Your task to perform on an android device: clear history in the chrome app Image 0: 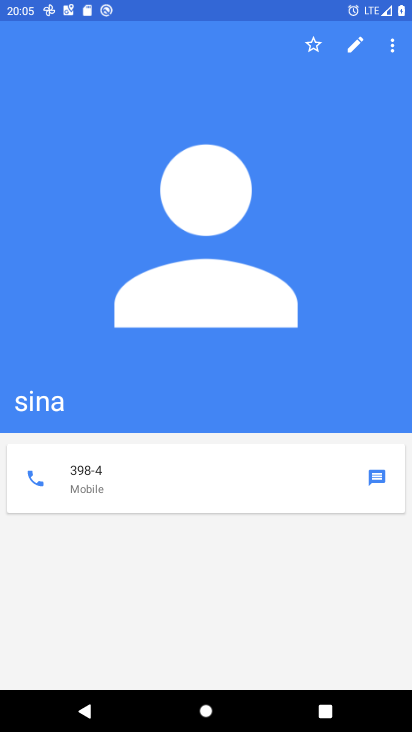
Step 0: press home button
Your task to perform on an android device: clear history in the chrome app Image 1: 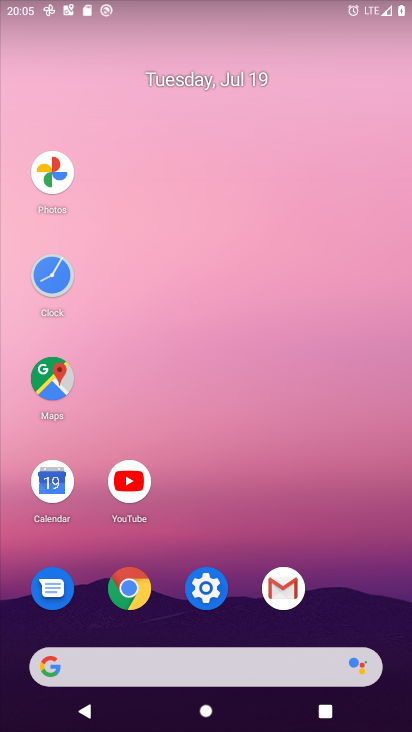
Step 1: click (123, 587)
Your task to perform on an android device: clear history in the chrome app Image 2: 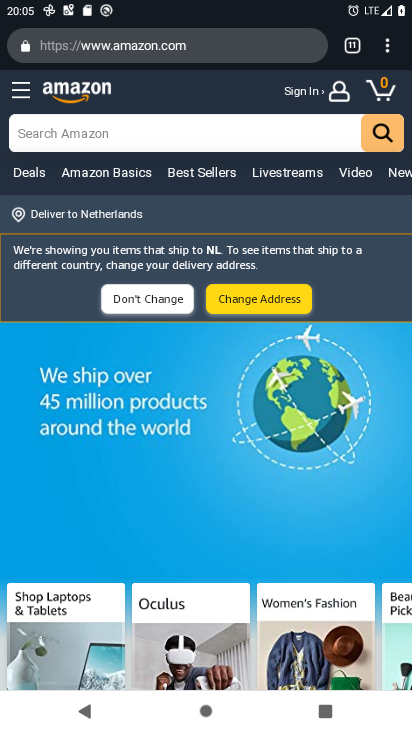
Step 2: click (388, 49)
Your task to perform on an android device: clear history in the chrome app Image 3: 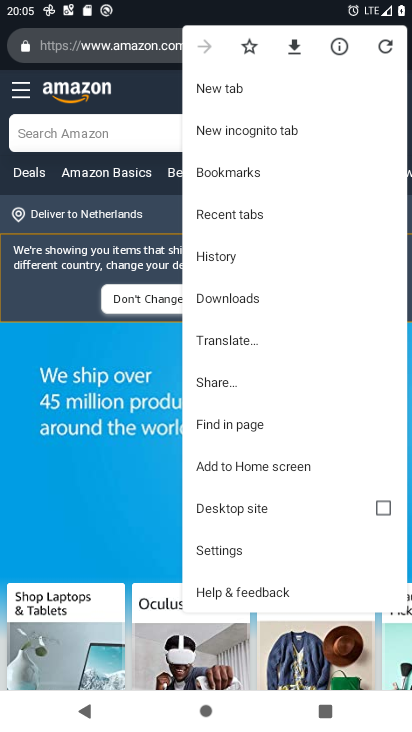
Step 3: click (214, 252)
Your task to perform on an android device: clear history in the chrome app Image 4: 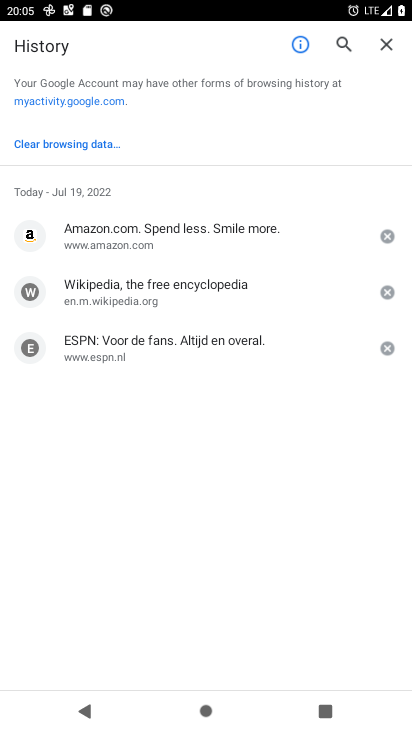
Step 4: click (63, 144)
Your task to perform on an android device: clear history in the chrome app Image 5: 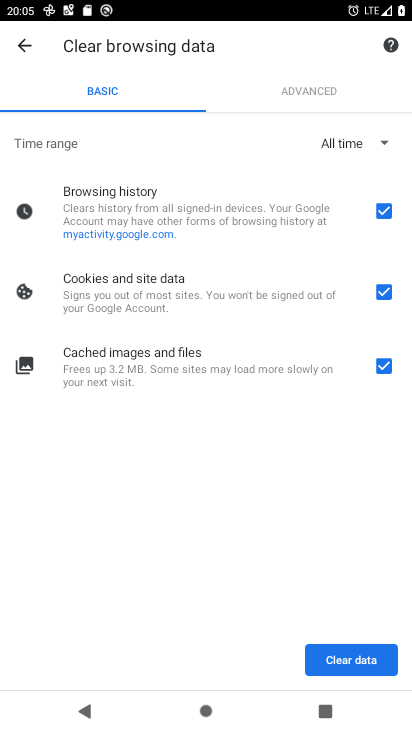
Step 5: click (335, 665)
Your task to perform on an android device: clear history in the chrome app Image 6: 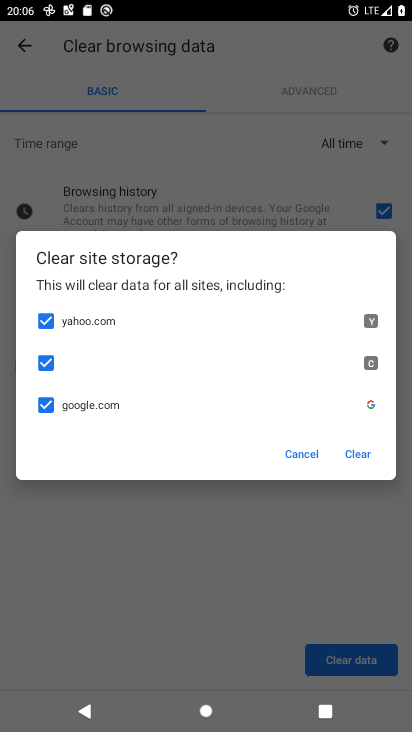
Step 6: click (352, 446)
Your task to perform on an android device: clear history in the chrome app Image 7: 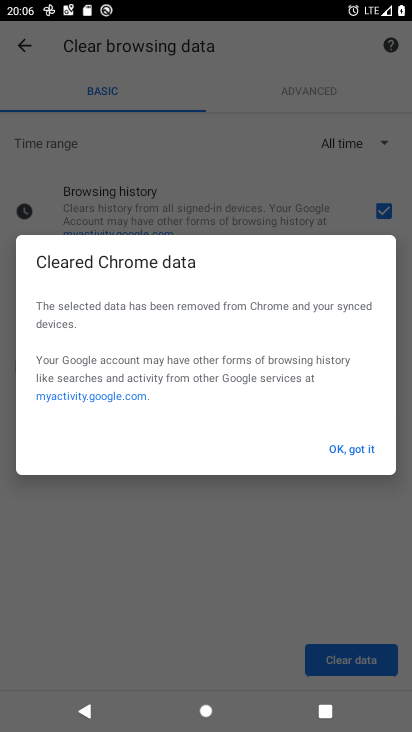
Step 7: click (362, 451)
Your task to perform on an android device: clear history in the chrome app Image 8: 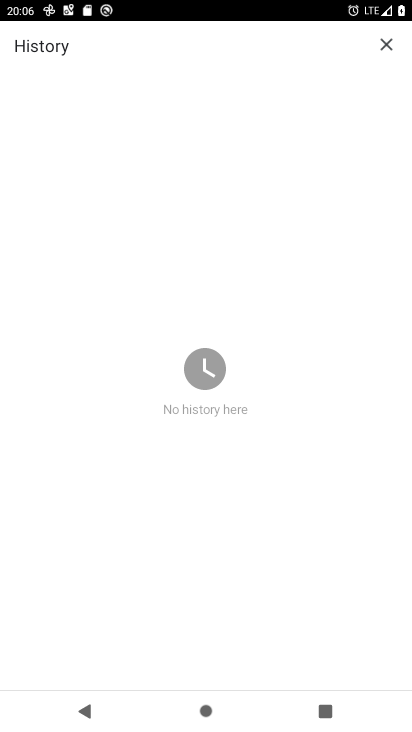
Step 8: task complete